Your task to perform on an android device: Open settings Image 0: 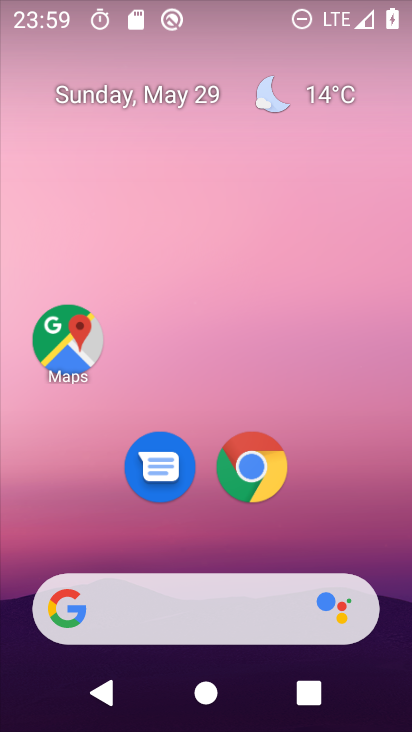
Step 0: drag from (195, 550) to (240, 170)
Your task to perform on an android device: Open settings Image 1: 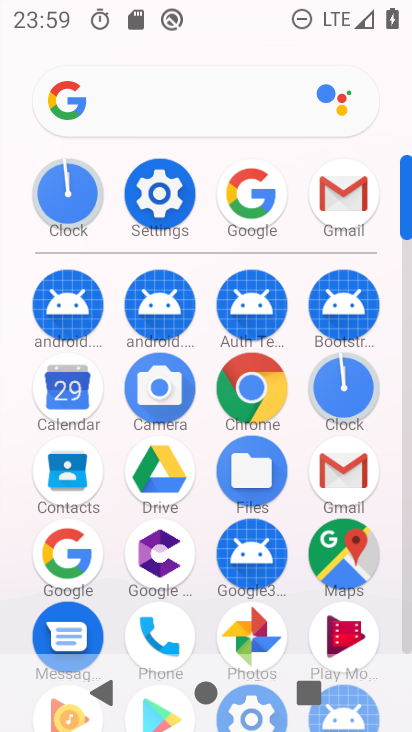
Step 1: click (163, 203)
Your task to perform on an android device: Open settings Image 2: 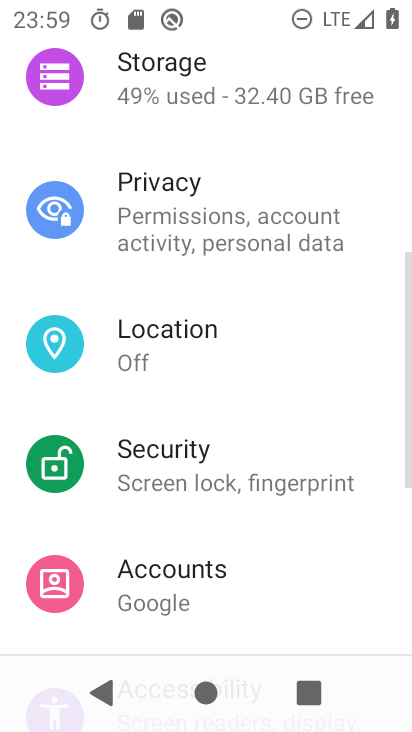
Step 2: task complete